Your task to perform on an android device: Show me the alarms in the clock app Image 0: 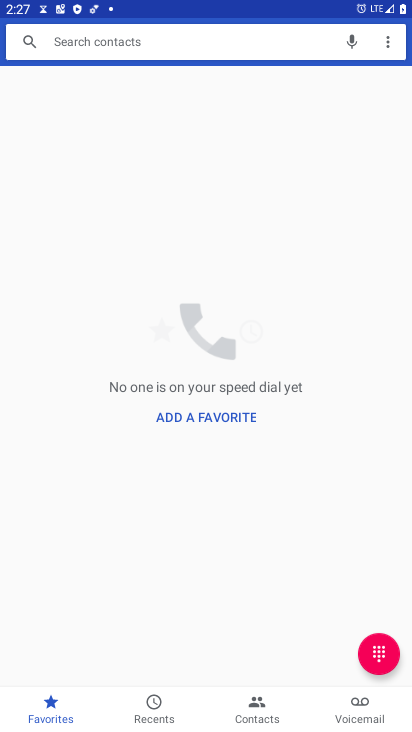
Step 0: press home button
Your task to perform on an android device: Show me the alarms in the clock app Image 1: 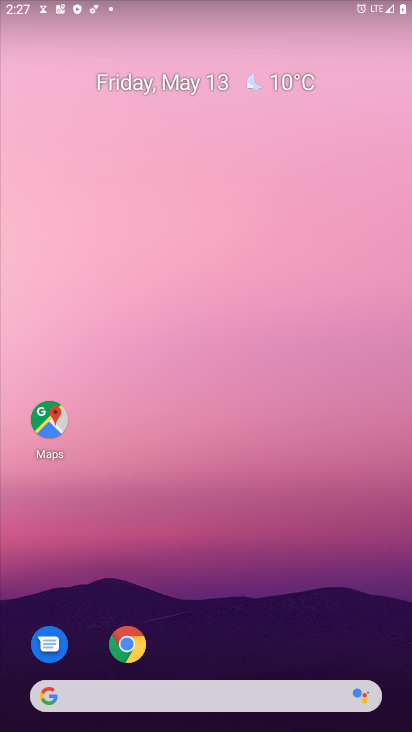
Step 1: drag from (223, 679) to (224, 325)
Your task to perform on an android device: Show me the alarms in the clock app Image 2: 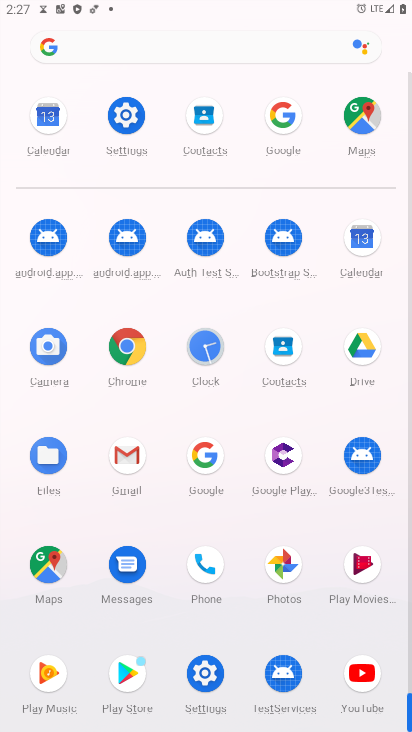
Step 2: click (205, 347)
Your task to perform on an android device: Show me the alarms in the clock app Image 3: 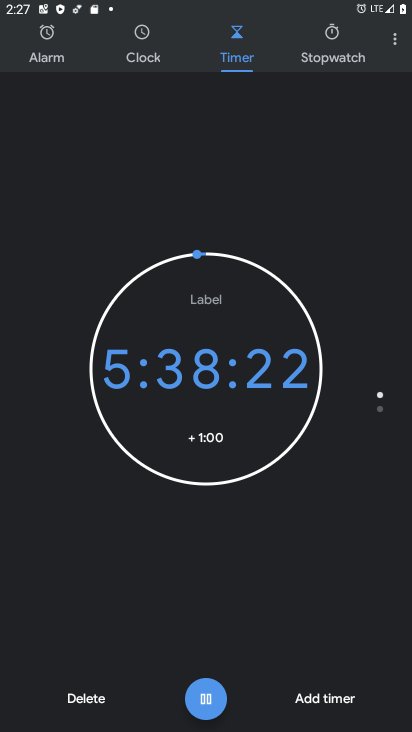
Step 3: click (53, 52)
Your task to perform on an android device: Show me the alarms in the clock app Image 4: 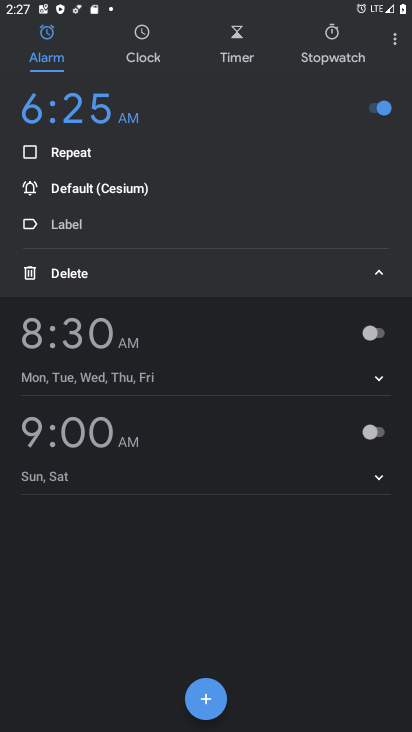
Step 4: task complete